Your task to perform on an android device: turn off airplane mode Image 0: 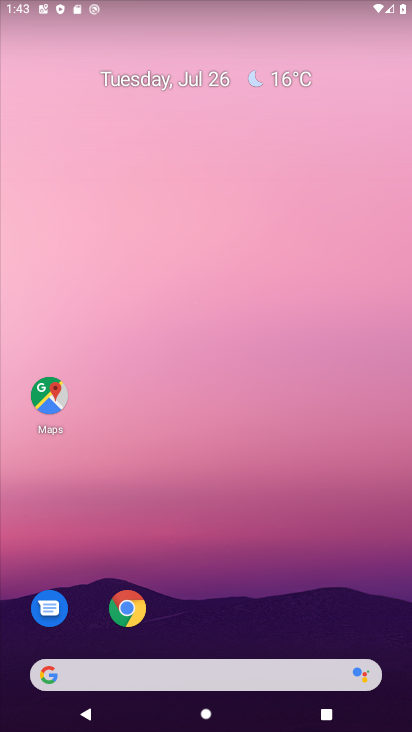
Step 0: drag from (249, 642) to (144, 19)
Your task to perform on an android device: turn off airplane mode Image 1: 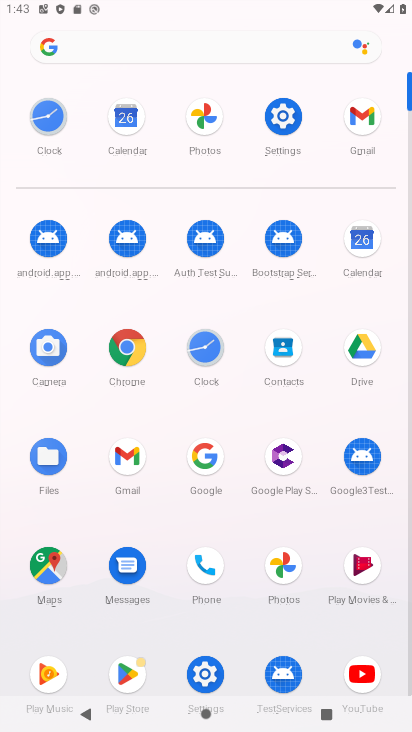
Step 1: click (277, 125)
Your task to perform on an android device: turn off airplane mode Image 2: 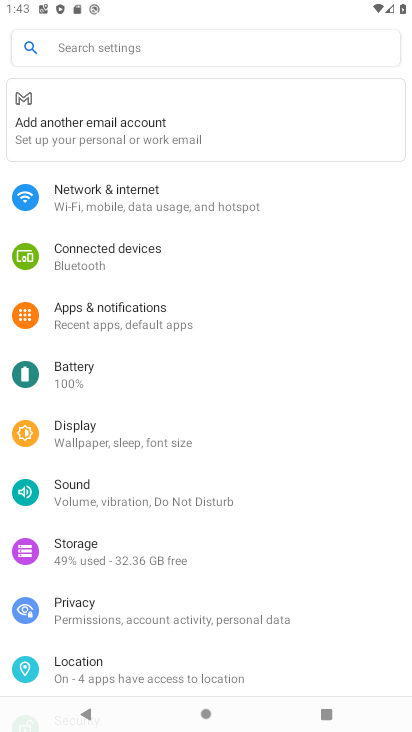
Step 2: click (203, 231)
Your task to perform on an android device: turn off airplane mode Image 3: 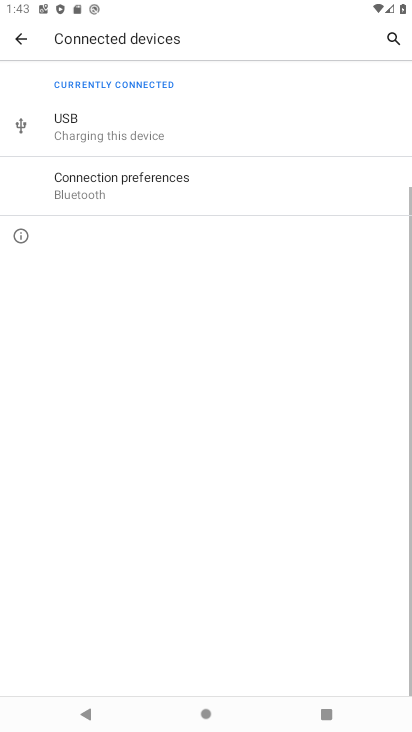
Step 3: task complete